Your task to perform on an android device: open device folders in google photos Image 0: 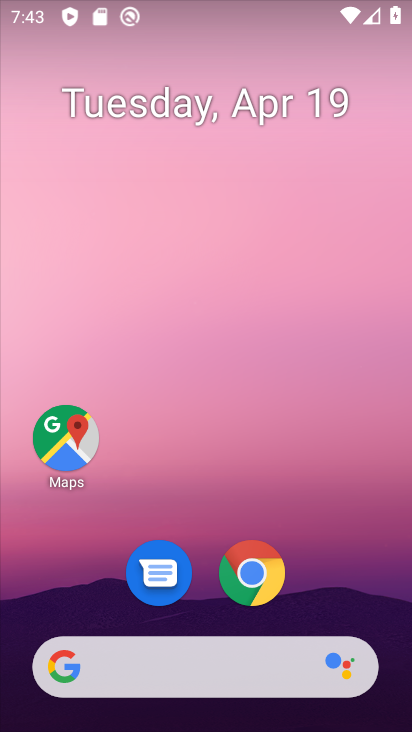
Step 0: drag from (317, 607) to (362, 86)
Your task to perform on an android device: open device folders in google photos Image 1: 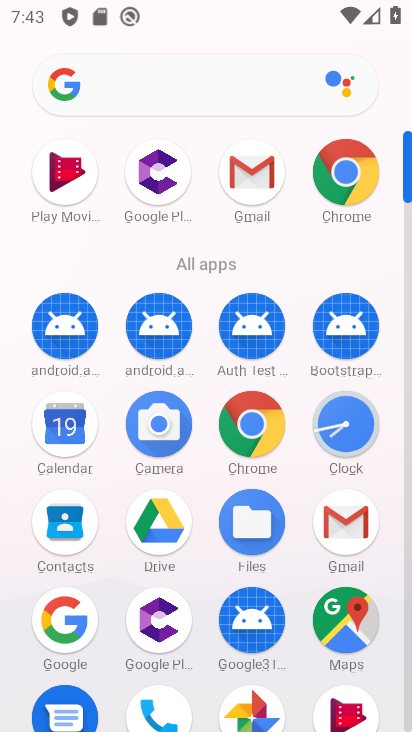
Step 1: drag from (299, 579) to (284, 198)
Your task to perform on an android device: open device folders in google photos Image 2: 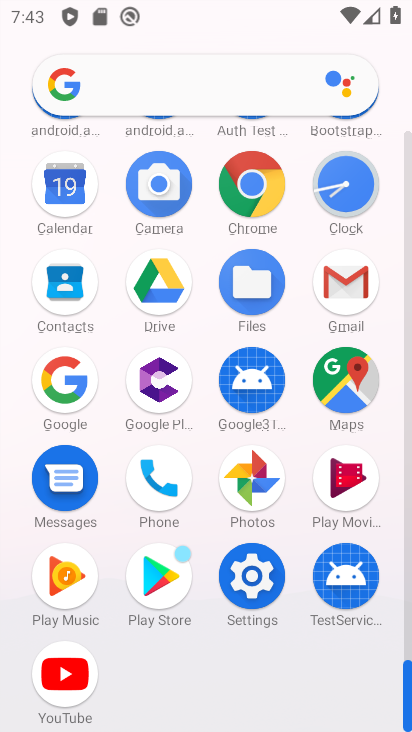
Step 2: click (250, 487)
Your task to perform on an android device: open device folders in google photos Image 3: 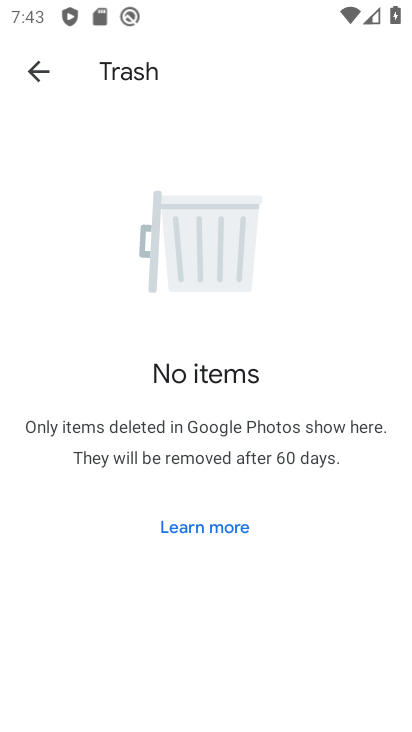
Step 3: click (38, 66)
Your task to perform on an android device: open device folders in google photos Image 4: 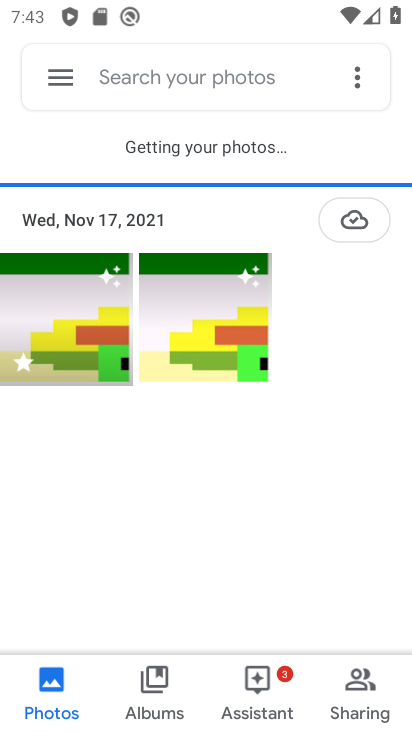
Step 4: click (38, 66)
Your task to perform on an android device: open device folders in google photos Image 5: 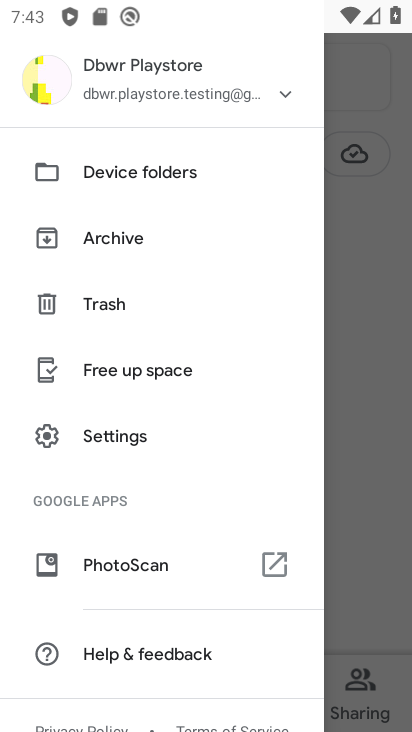
Step 5: click (112, 178)
Your task to perform on an android device: open device folders in google photos Image 6: 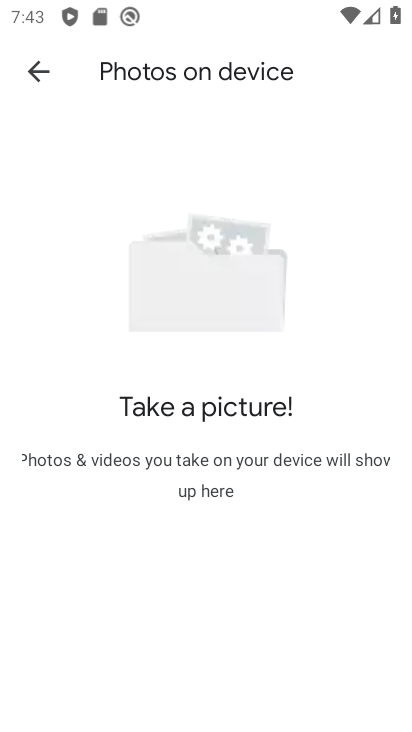
Step 6: task complete